Your task to perform on an android device: Go to notification settings Image 0: 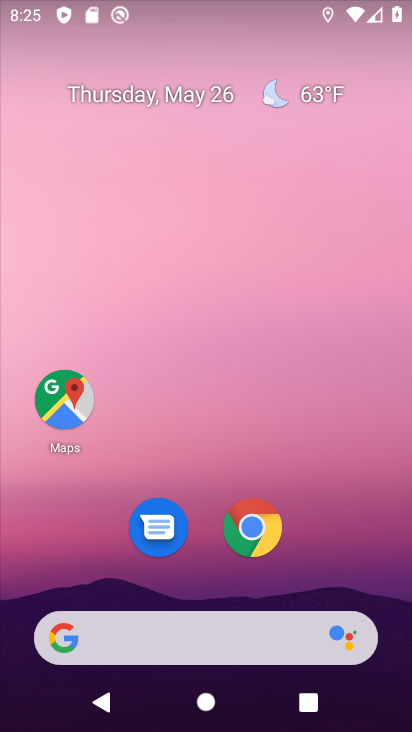
Step 0: drag from (348, 448) to (320, 36)
Your task to perform on an android device: Go to notification settings Image 1: 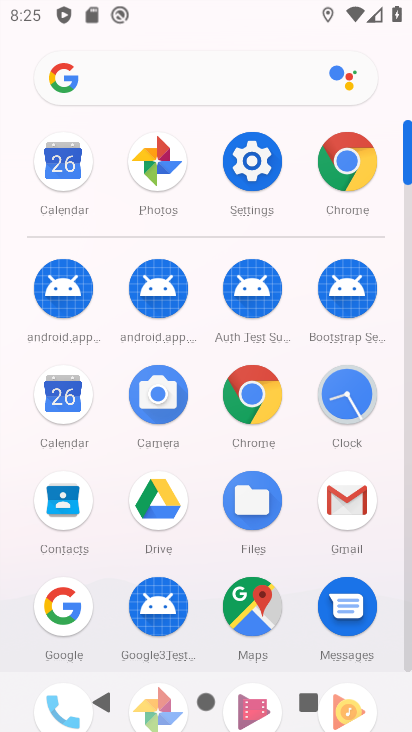
Step 1: click (251, 155)
Your task to perform on an android device: Go to notification settings Image 2: 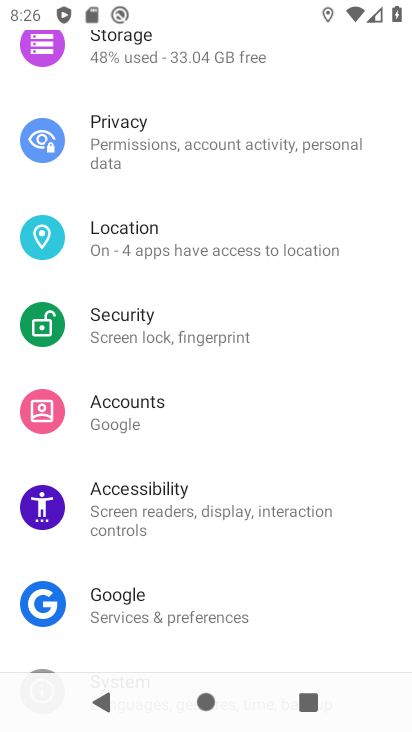
Step 2: drag from (233, 165) to (309, 487)
Your task to perform on an android device: Go to notification settings Image 3: 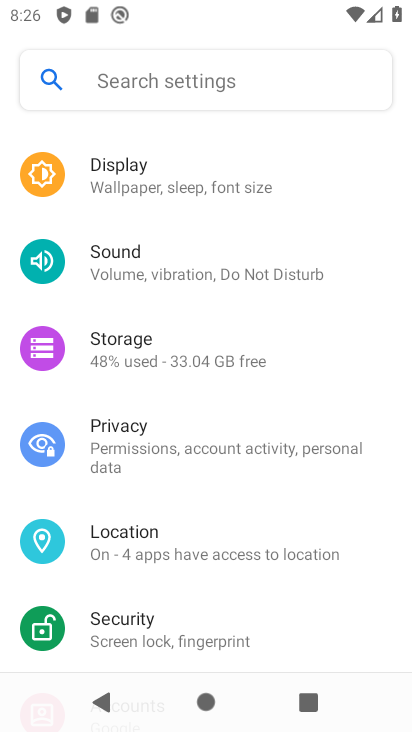
Step 3: drag from (260, 200) to (316, 533)
Your task to perform on an android device: Go to notification settings Image 4: 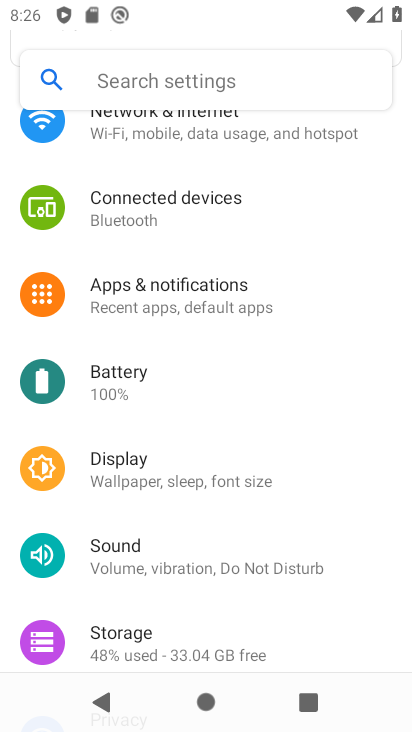
Step 4: click (202, 302)
Your task to perform on an android device: Go to notification settings Image 5: 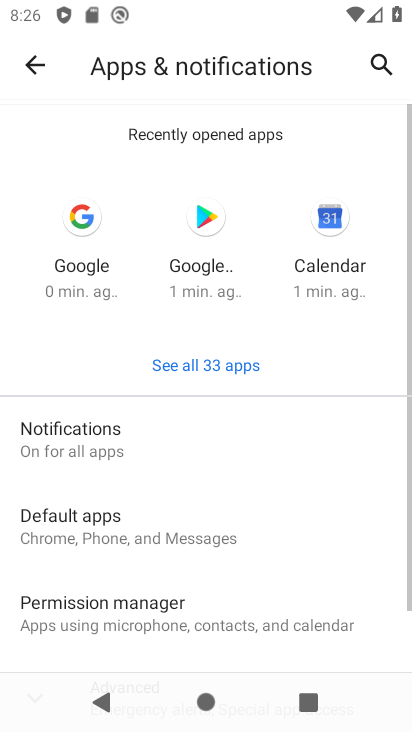
Step 5: click (74, 439)
Your task to perform on an android device: Go to notification settings Image 6: 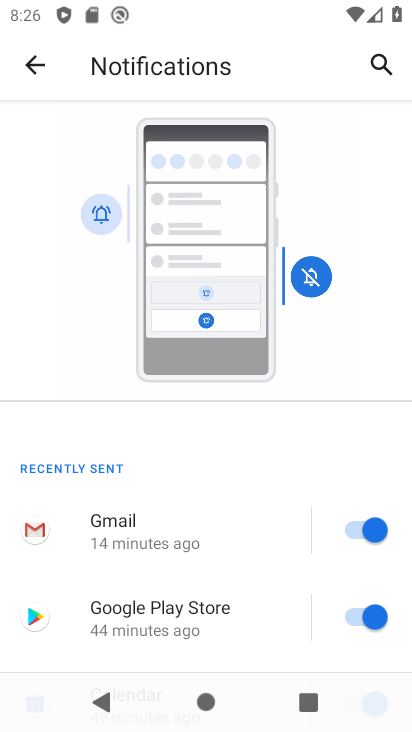
Step 6: task complete